Your task to perform on an android device: What is the news today? Image 0: 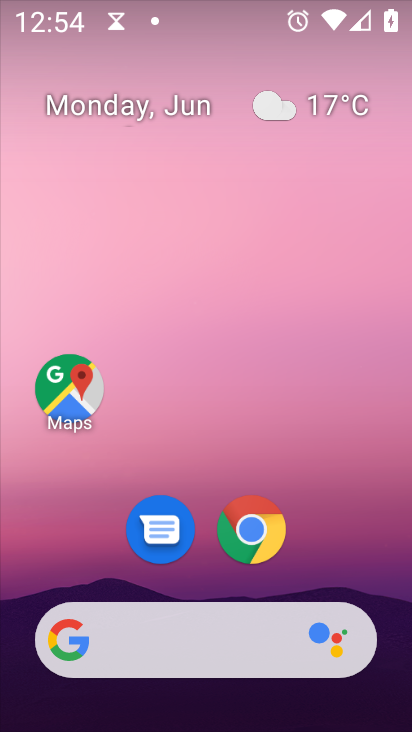
Step 0: drag from (348, 564) to (320, 35)
Your task to perform on an android device: What is the news today? Image 1: 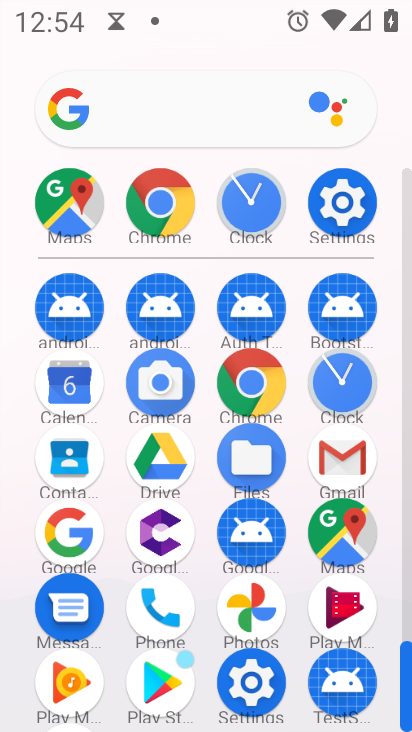
Step 1: click (169, 198)
Your task to perform on an android device: What is the news today? Image 2: 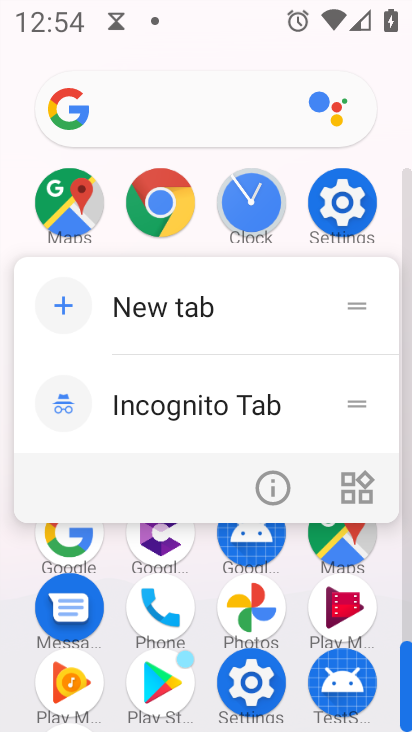
Step 2: click (169, 198)
Your task to perform on an android device: What is the news today? Image 3: 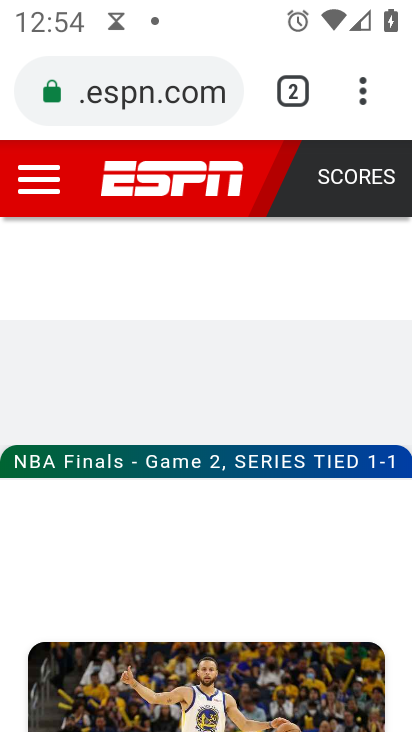
Step 3: task complete